Your task to perform on an android device: Show me popular videos on Youtube Image 0: 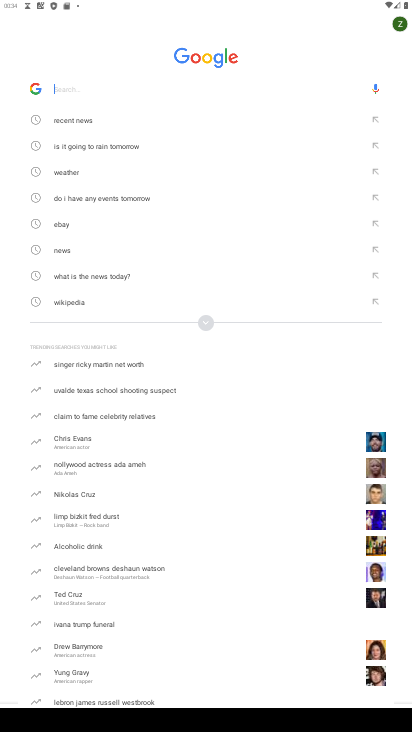
Step 0: press home button
Your task to perform on an android device: Show me popular videos on Youtube Image 1: 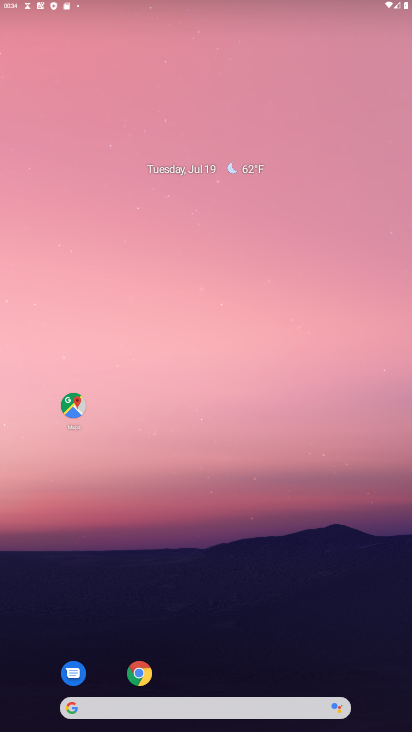
Step 1: drag from (266, 652) to (244, 314)
Your task to perform on an android device: Show me popular videos on Youtube Image 2: 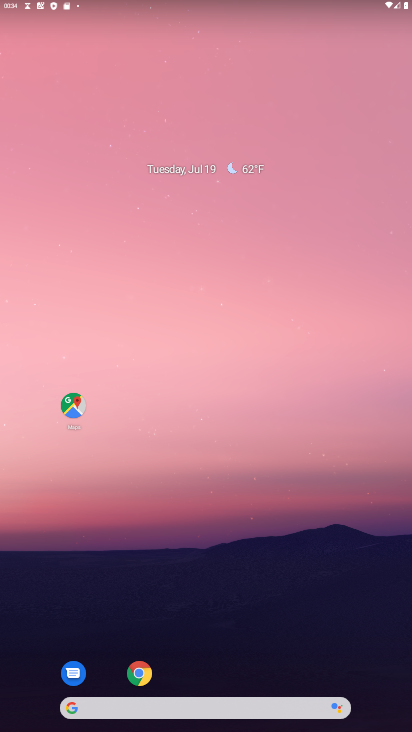
Step 2: drag from (304, 677) to (283, 167)
Your task to perform on an android device: Show me popular videos on Youtube Image 3: 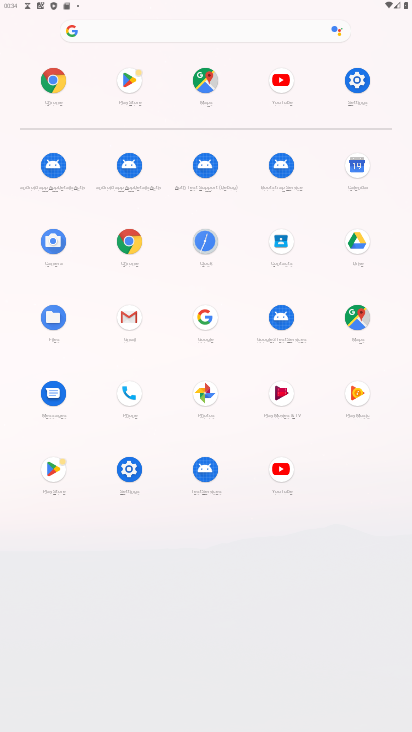
Step 3: click (271, 470)
Your task to perform on an android device: Show me popular videos on Youtube Image 4: 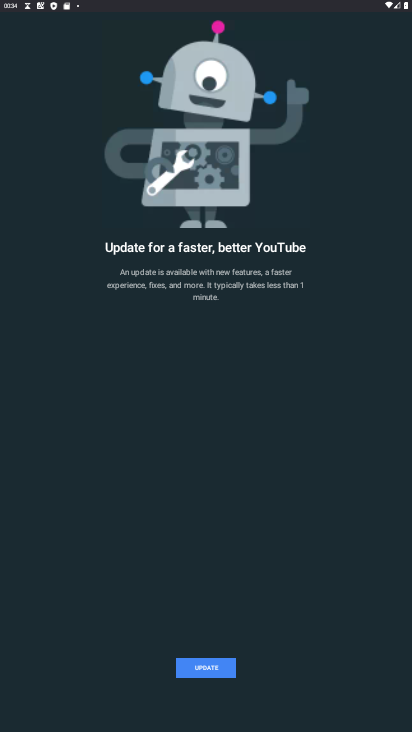
Step 4: task complete